Your task to perform on an android device: toggle javascript in the chrome app Image 0: 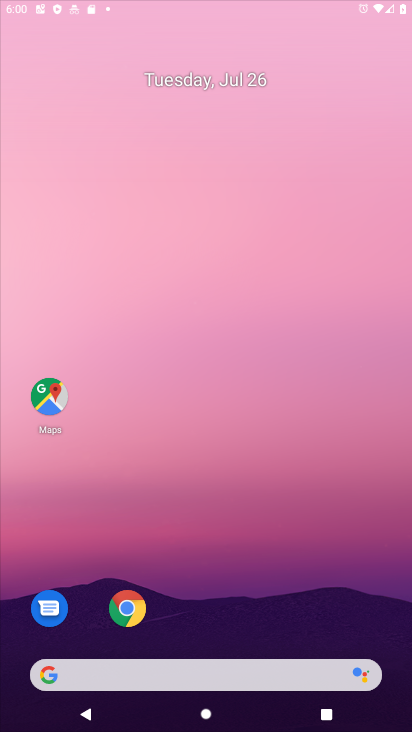
Step 0: press home button
Your task to perform on an android device: toggle javascript in the chrome app Image 1: 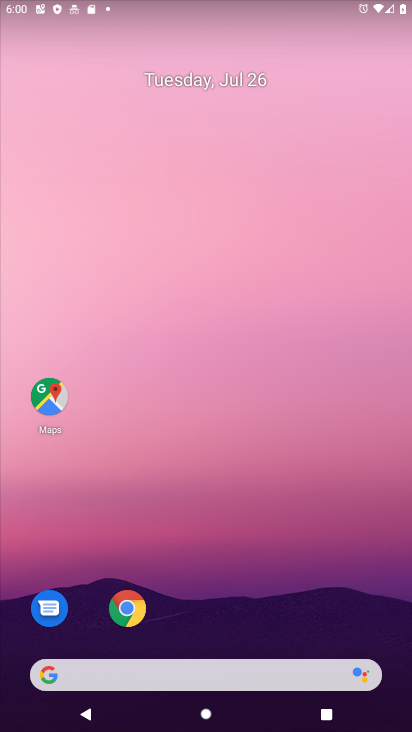
Step 1: drag from (255, 639) to (313, 2)
Your task to perform on an android device: toggle javascript in the chrome app Image 2: 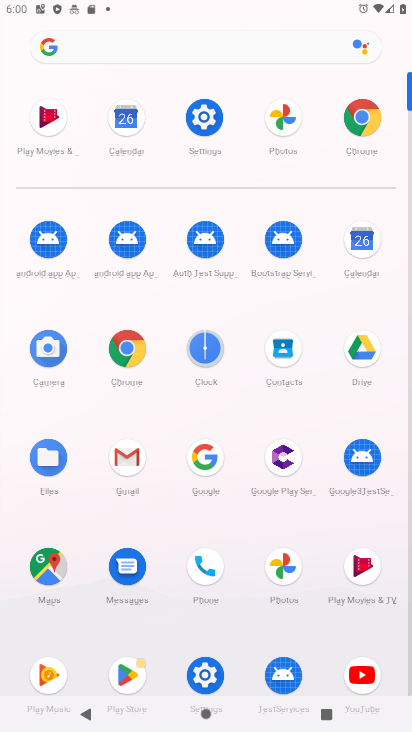
Step 2: click (366, 114)
Your task to perform on an android device: toggle javascript in the chrome app Image 3: 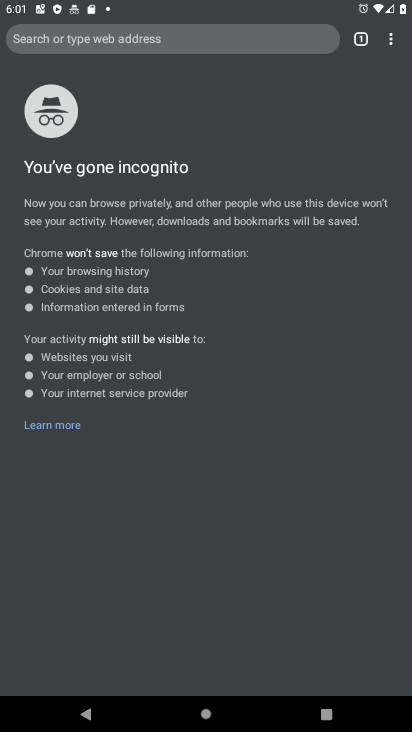
Step 3: drag from (388, 41) to (239, 289)
Your task to perform on an android device: toggle javascript in the chrome app Image 4: 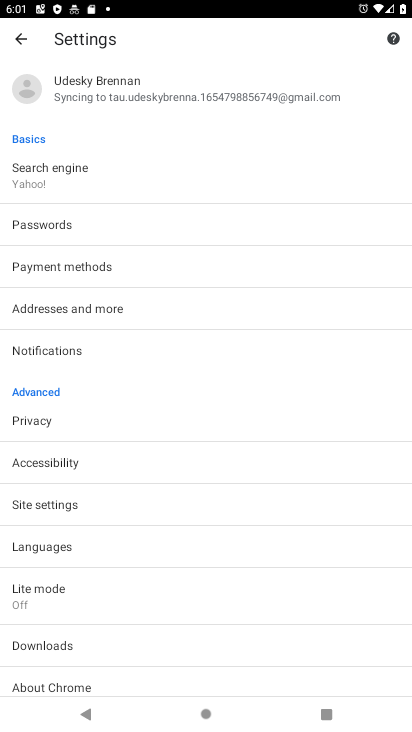
Step 4: click (45, 506)
Your task to perform on an android device: toggle javascript in the chrome app Image 5: 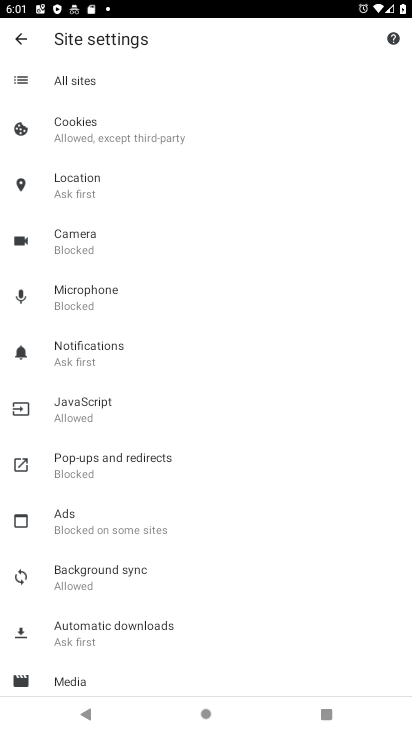
Step 5: click (72, 409)
Your task to perform on an android device: toggle javascript in the chrome app Image 6: 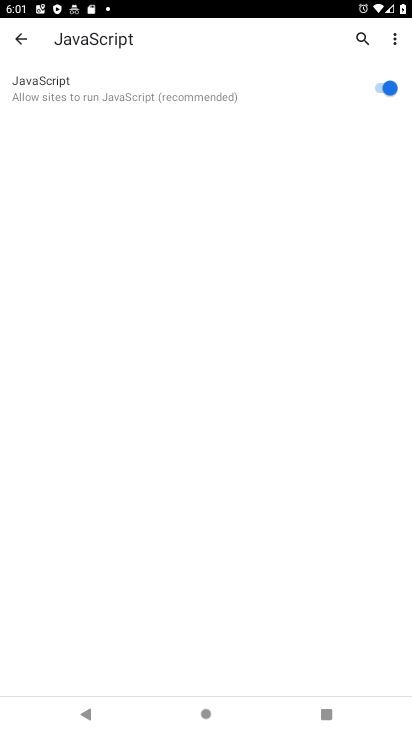
Step 6: click (396, 93)
Your task to perform on an android device: toggle javascript in the chrome app Image 7: 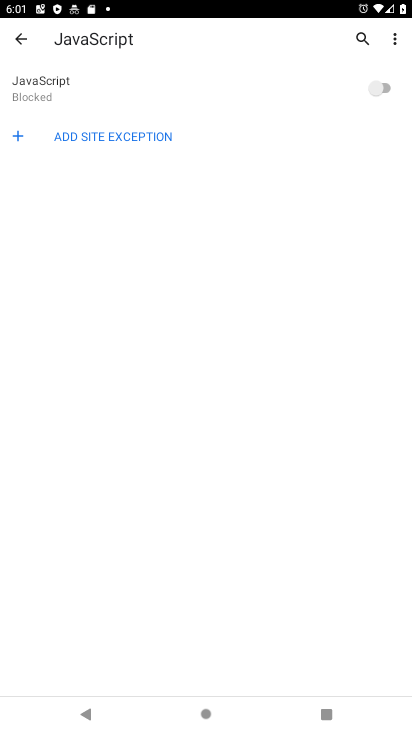
Step 7: task complete